Your task to perform on an android device: toggle pop-ups in chrome Image 0: 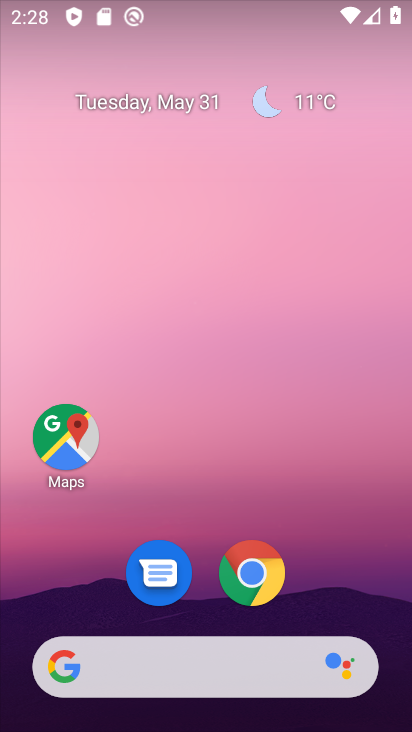
Step 0: drag from (371, 603) to (295, 217)
Your task to perform on an android device: toggle pop-ups in chrome Image 1: 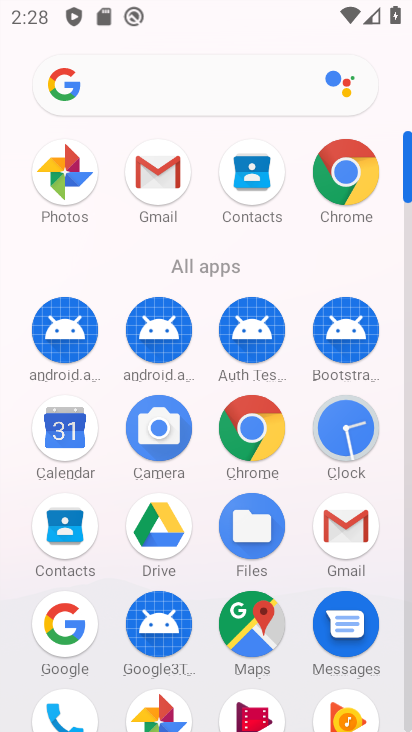
Step 1: click (348, 174)
Your task to perform on an android device: toggle pop-ups in chrome Image 2: 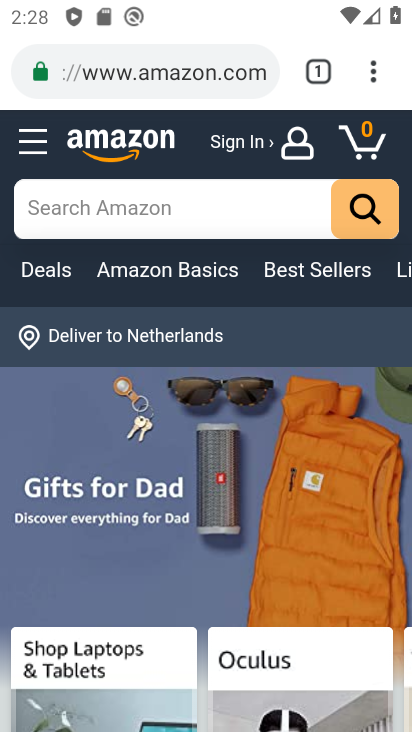
Step 2: click (366, 72)
Your task to perform on an android device: toggle pop-ups in chrome Image 3: 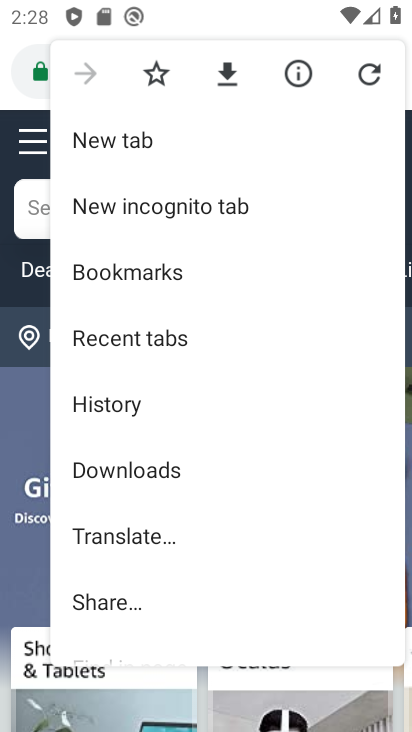
Step 3: drag from (213, 610) to (212, 326)
Your task to perform on an android device: toggle pop-ups in chrome Image 4: 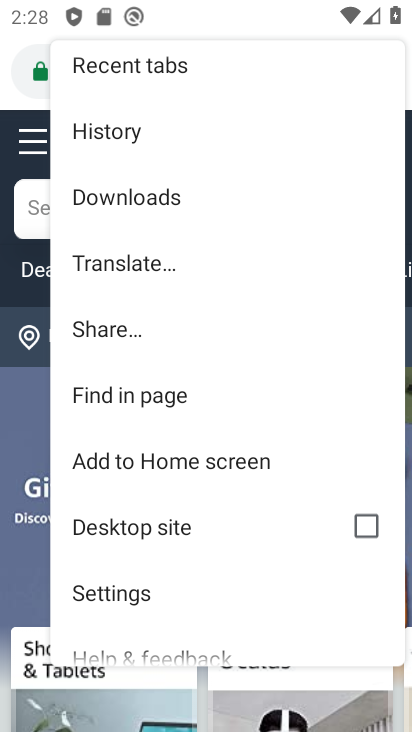
Step 4: click (156, 580)
Your task to perform on an android device: toggle pop-ups in chrome Image 5: 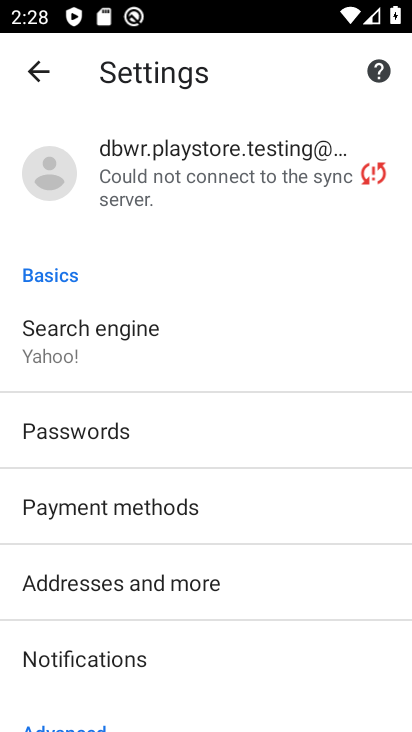
Step 5: drag from (183, 685) to (207, 289)
Your task to perform on an android device: toggle pop-ups in chrome Image 6: 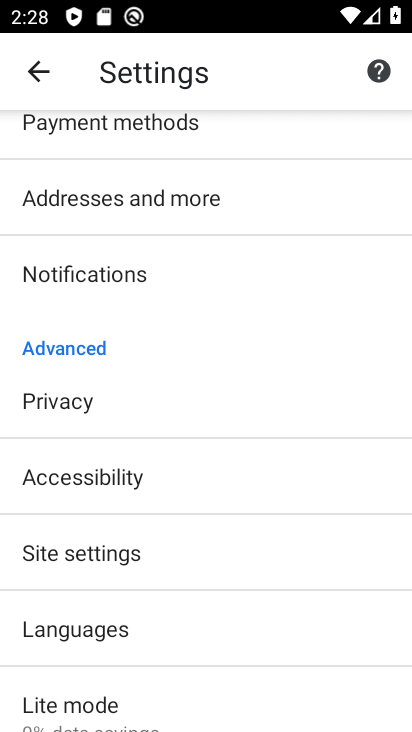
Step 6: click (141, 560)
Your task to perform on an android device: toggle pop-ups in chrome Image 7: 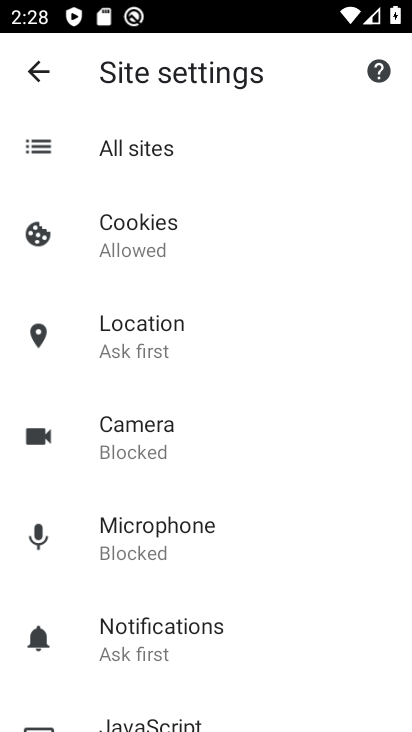
Step 7: drag from (222, 662) to (200, 300)
Your task to perform on an android device: toggle pop-ups in chrome Image 8: 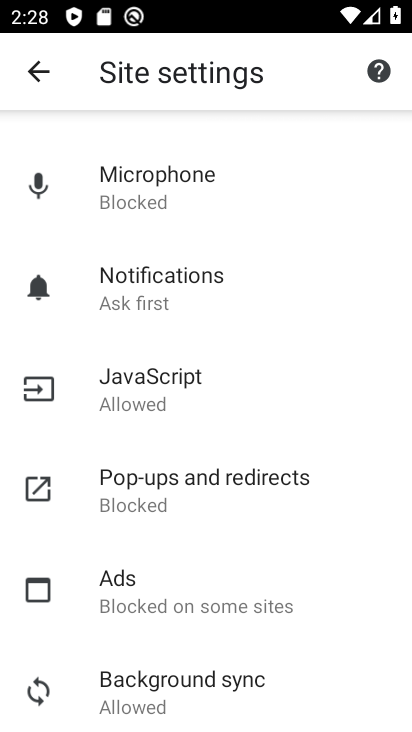
Step 8: click (226, 471)
Your task to perform on an android device: toggle pop-ups in chrome Image 9: 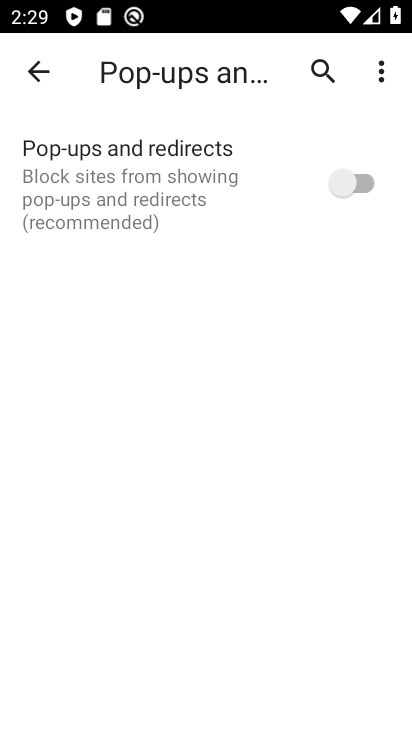
Step 9: click (361, 193)
Your task to perform on an android device: toggle pop-ups in chrome Image 10: 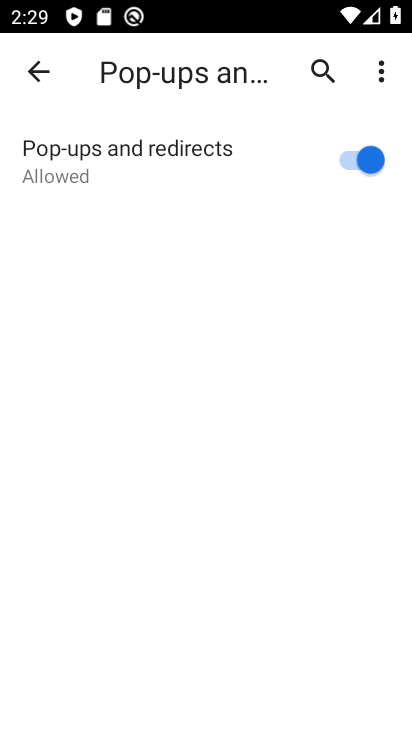
Step 10: task complete